Your task to perform on an android device: Empty the shopping cart on costco. Search for apple airpods on costco, select the first entry, and add it to the cart. Image 0: 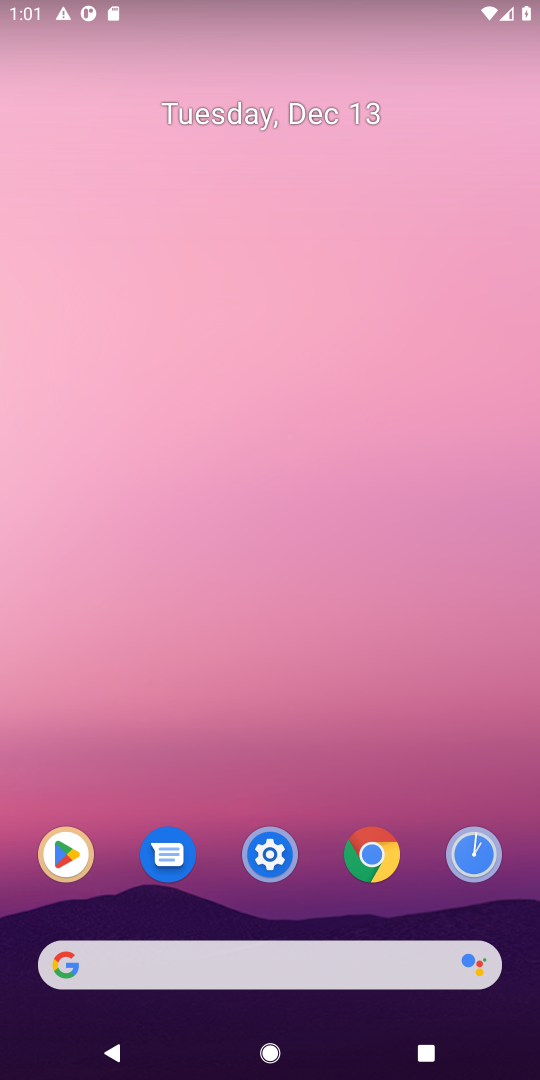
Step 0: click (316, 954)
Your task to perform on an android device: Empty the shopping cart on costco. Search for apple airpods on costco, select the first entry, and add it to the cart. Image 1: 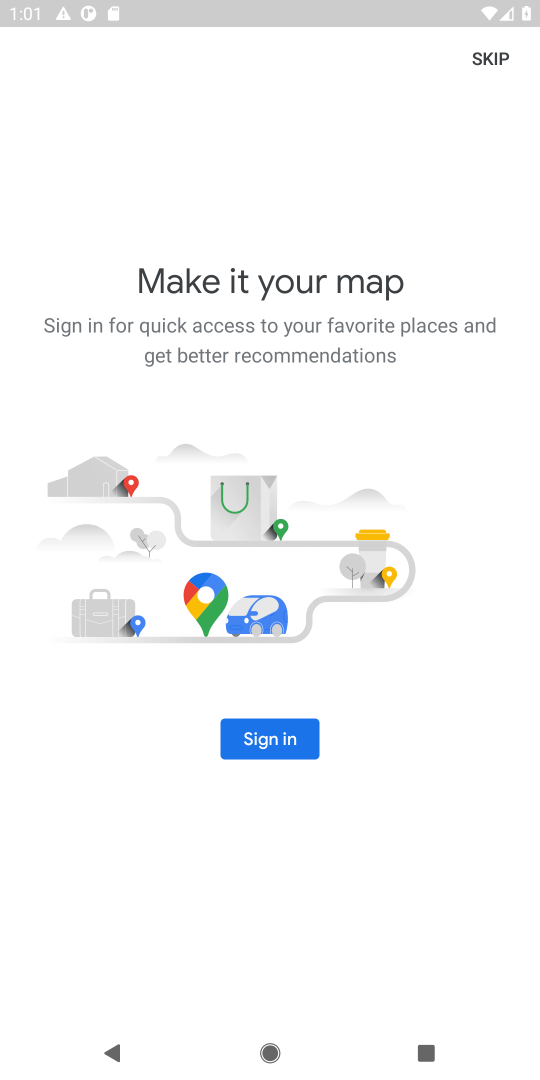
Step 1: click (476, 65)
Your task to perform on an android device: Empty the shopping cart on costco. Search for apple airpods on costco, select the first entry, and add it to the cart. Image 2: 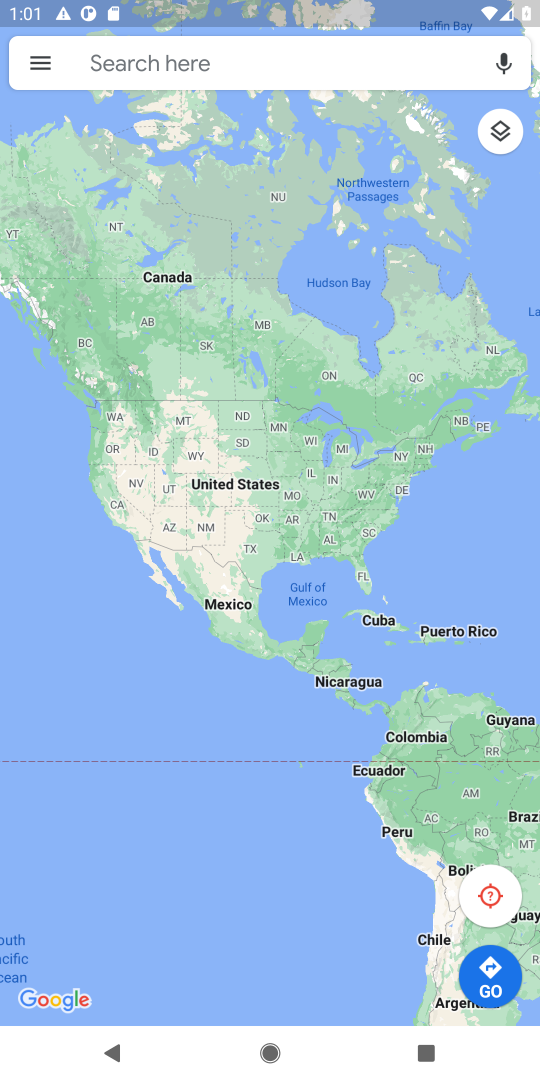
Step 2: press home button
Your task to perform on an android device: Empty the shopping cart on costco. Search for apple airpods on costco, select the first entry, and add it to the cart. Image 3: 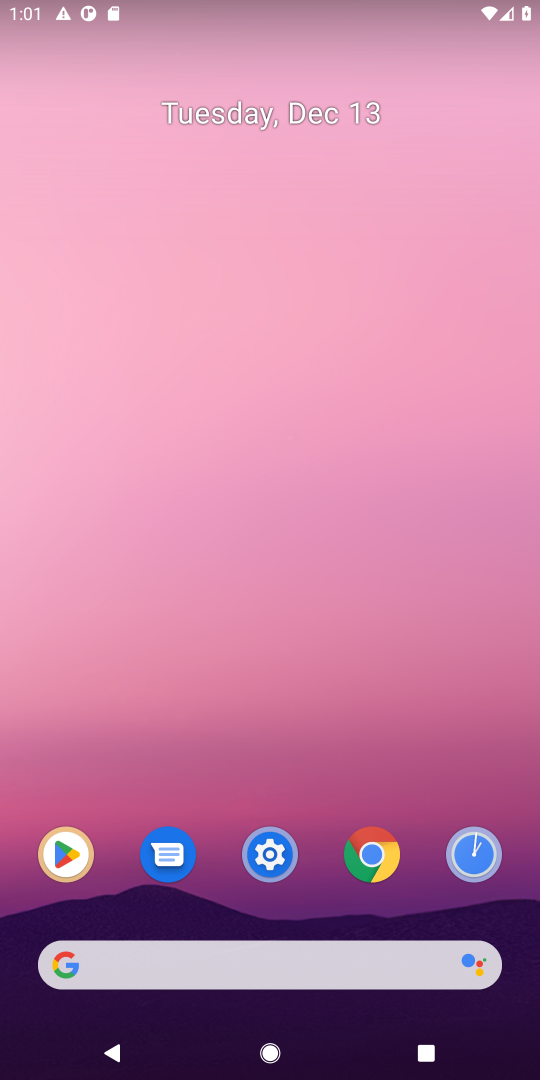
Step 3: click (267, 958)
Your task to perform on an android device: Empty the shopping cart on costco. Search for apple airpods on costco, select the first entry, and add it to the cart. Image 4: 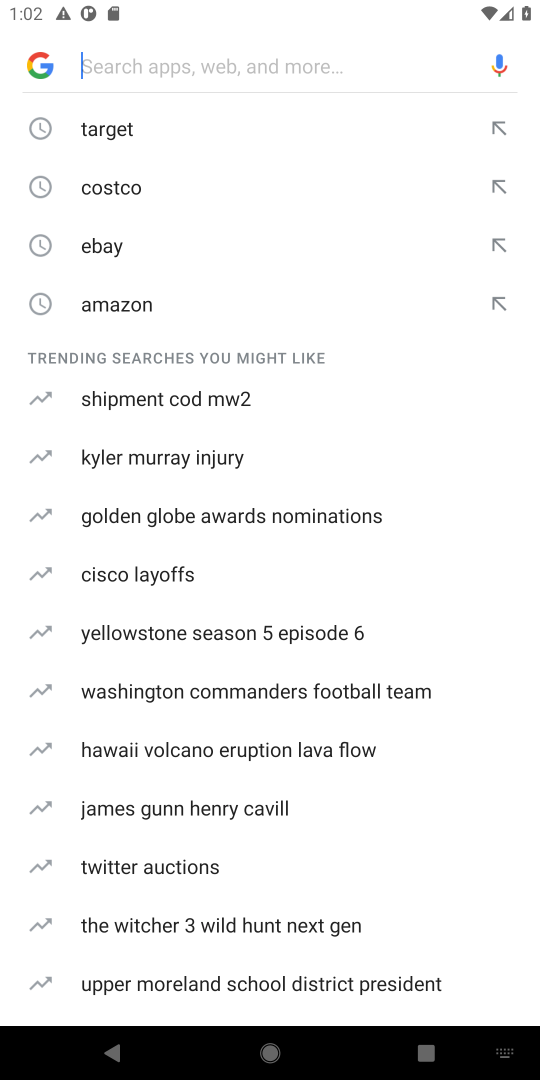
Step 4: click (115, 186)
Your task to perform on an android device: Empty the shopping cart on costco. Search for apple airpods on costco, select the first entry, and add it to the cart. Image 5: 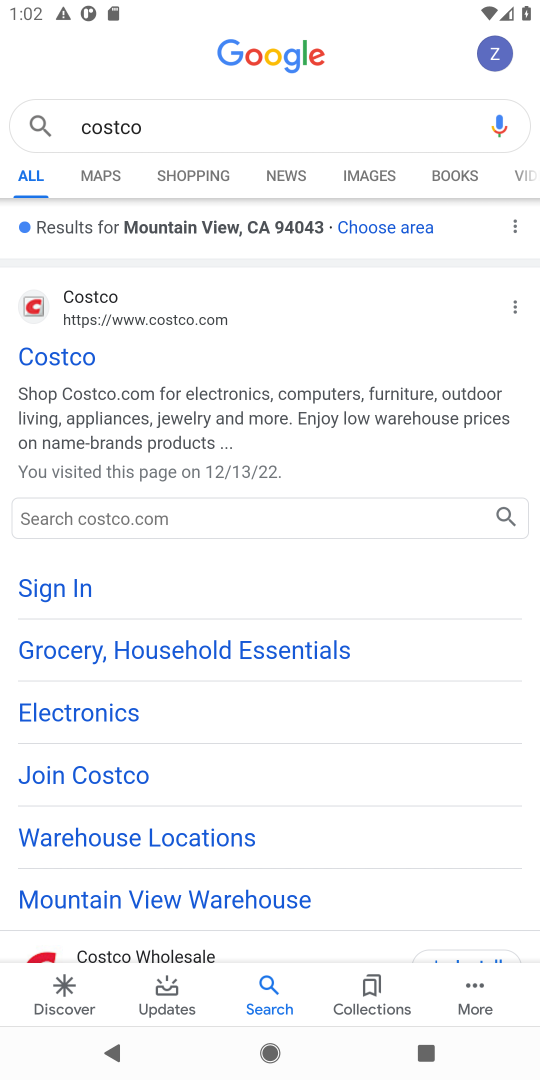
Step 5: click (44, 377)
Your task to perform on an android device: Empty the shopping cart on costco. Search for apple airpods on costco, select the first entry, and add it to the cart. Image 6: 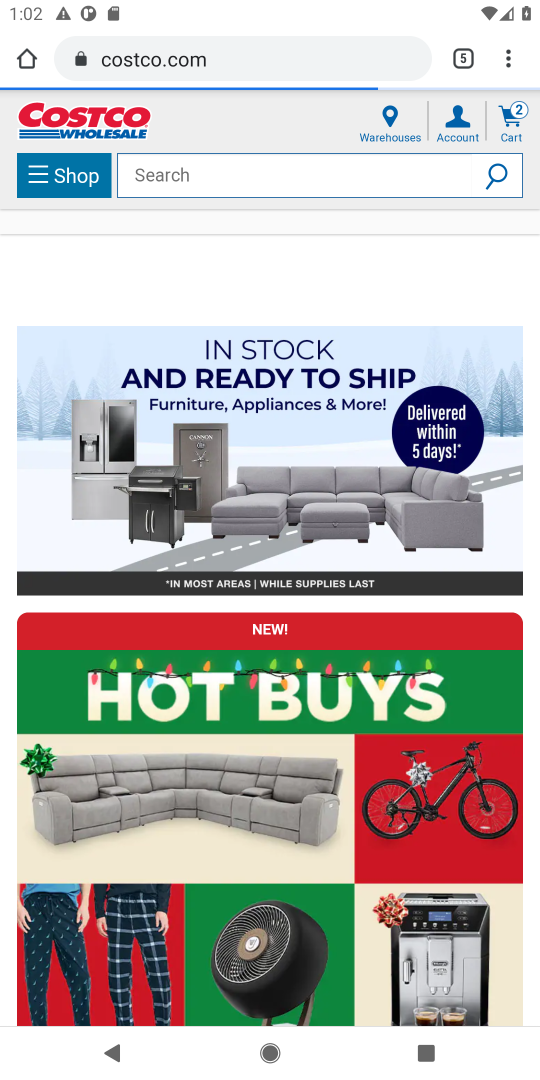
Step 6: click (266, 186)
Your task to perform on an android device: Empty the shopping cart on costco. Search for apple airpods on costco, select the first entry, and add it to the cart. Image 7: 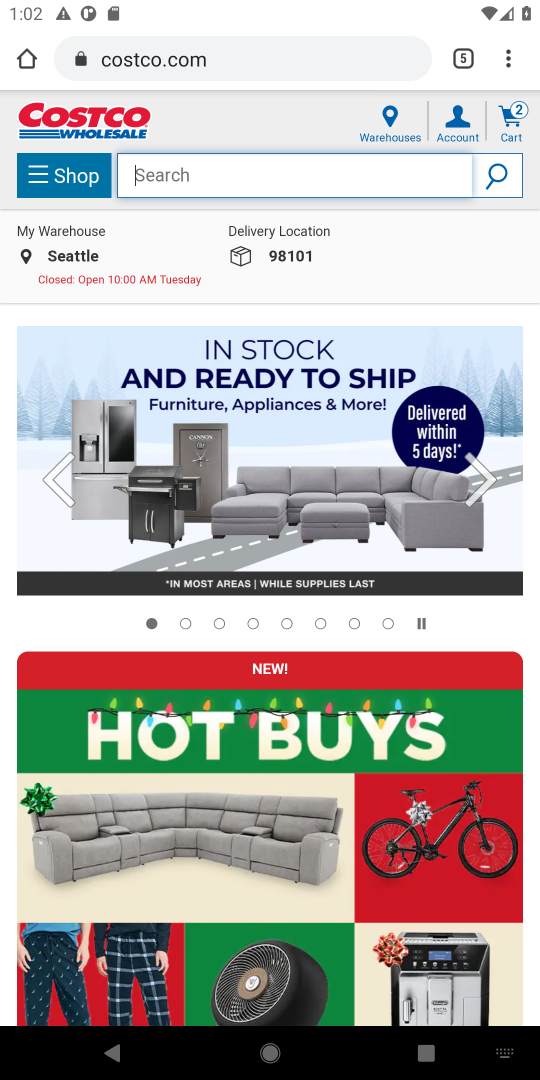
Step 7: type "apple airpod"
Your task to perform on an android device: Empty the shopping cart on costco. Search for apple airpods on costco, select the first entry, and add it to the cart. Image 8: 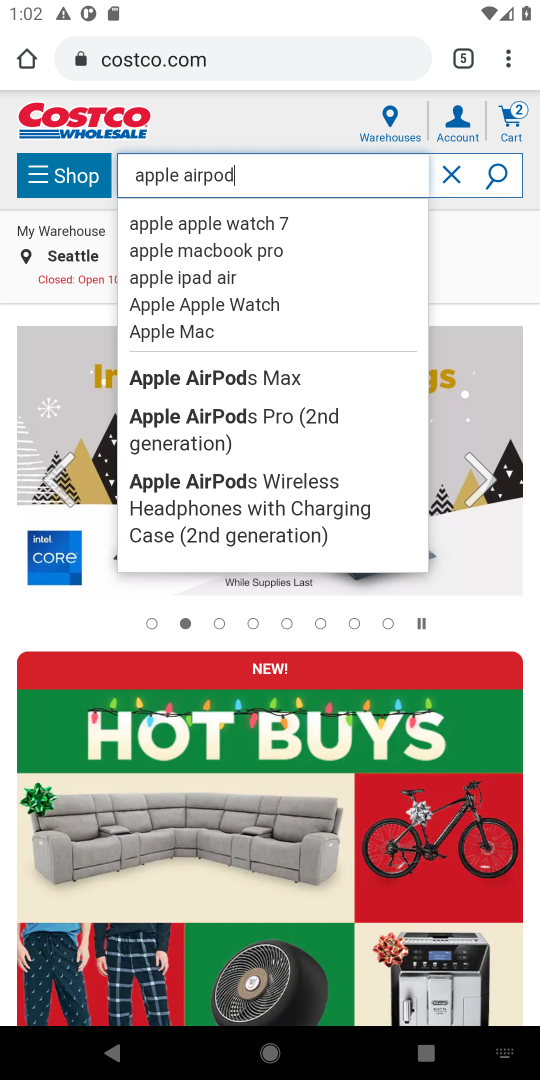
Step 8: click (495, 189)
Your task to perform on an android device: Empty the shopping cart on costco. Search for apple airpods on costco, select the first entry, and add it to the cart. Image 9: 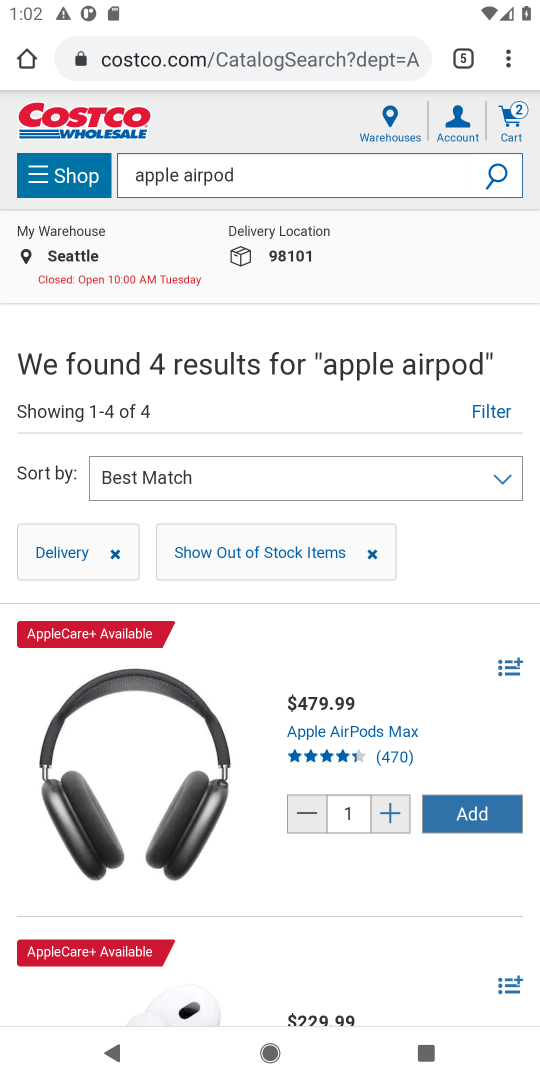
Step 9: click (480, 800)
Your task to perform on an android device: Empty the shopping cart on costco. Search for apple airpods on costco, select the first entry, and add it to the cart. Image 10: 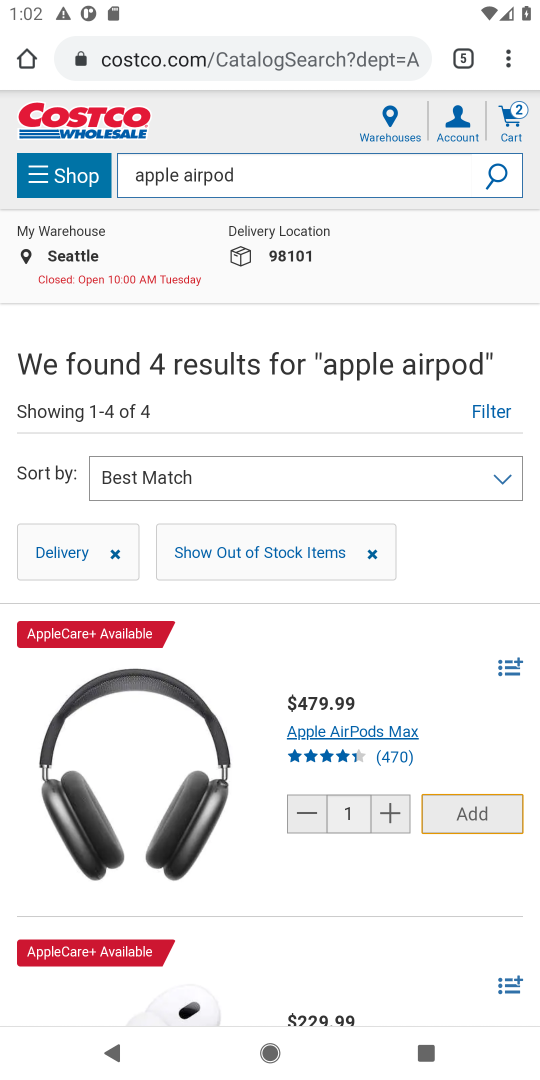
Step 10: task complete